Your task to perform on an android device: Go to settings Image 0: 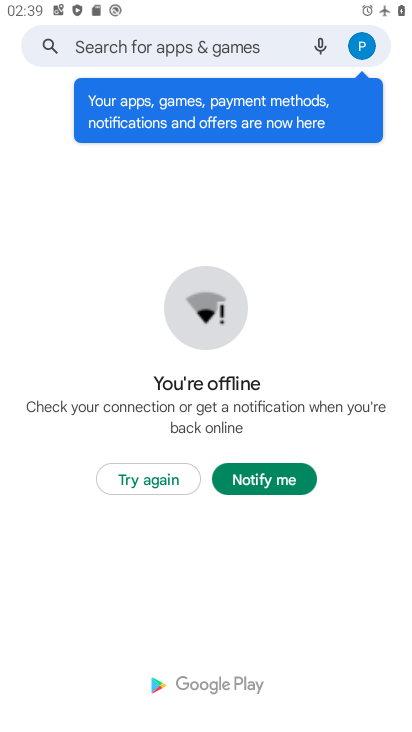
Step 0: press home button
Your task to perform on an android device: Go to settings Image 1: 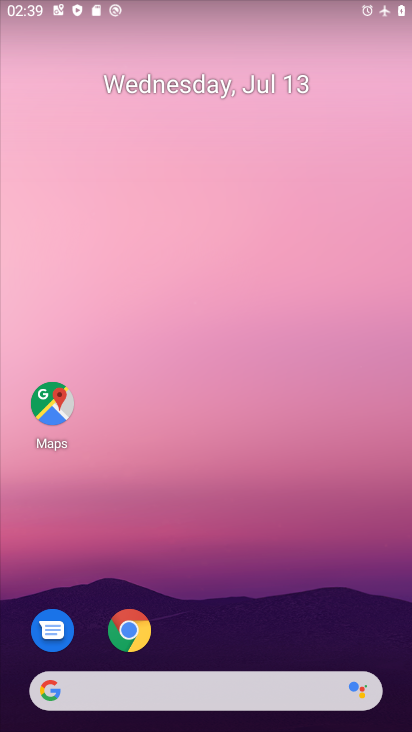
Step 1: drag from (216, 641) to (206, 248)
Your task to perform on an android device: Go to settings Image 2: 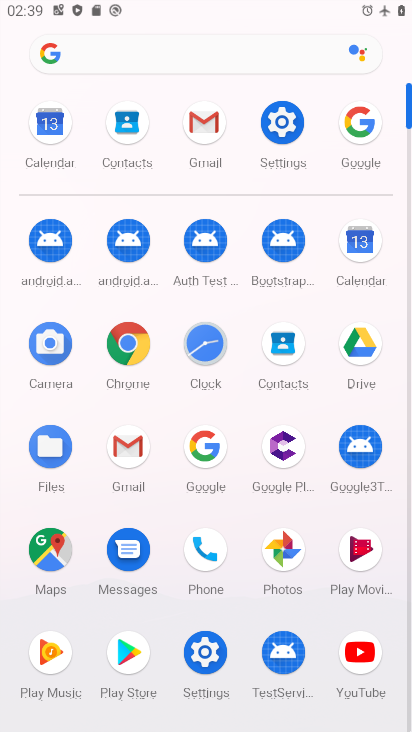
Step 2: click (286, 146)
Your task to perform on an android device: Go to settings Image 3: 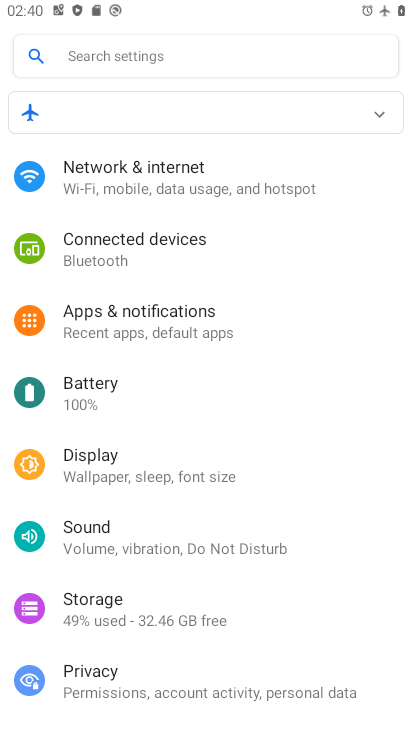
Step 3: task complete